Your task to perform on an android device: Search for pizza restaurants on Maps Image 0: 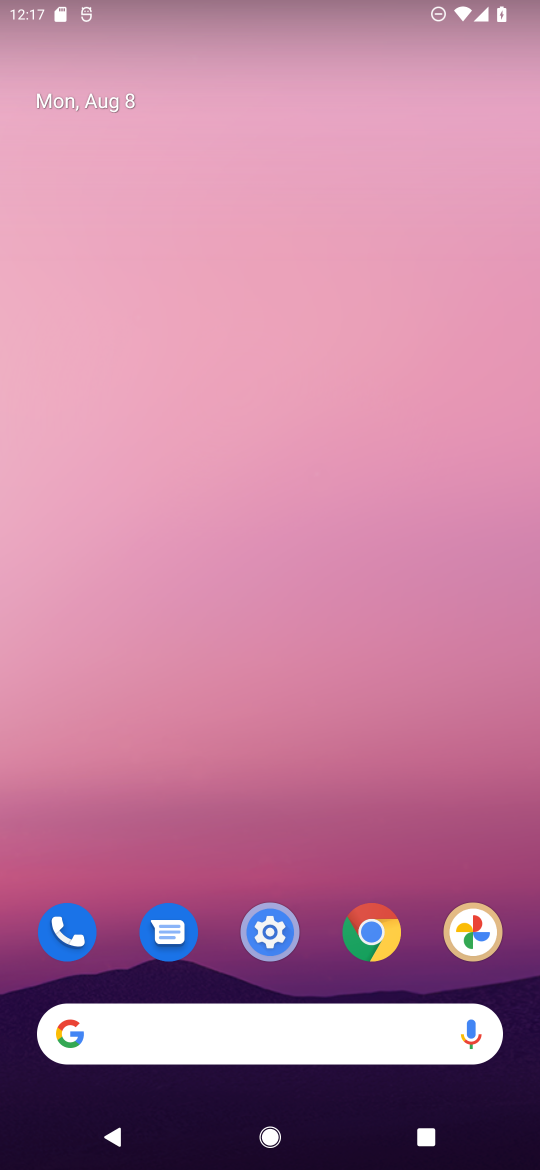
Step 0: drag from (234, 876) to (290, 343)
Your task to perform on an android device: Search for pizza restaurants on Maps Image 1: 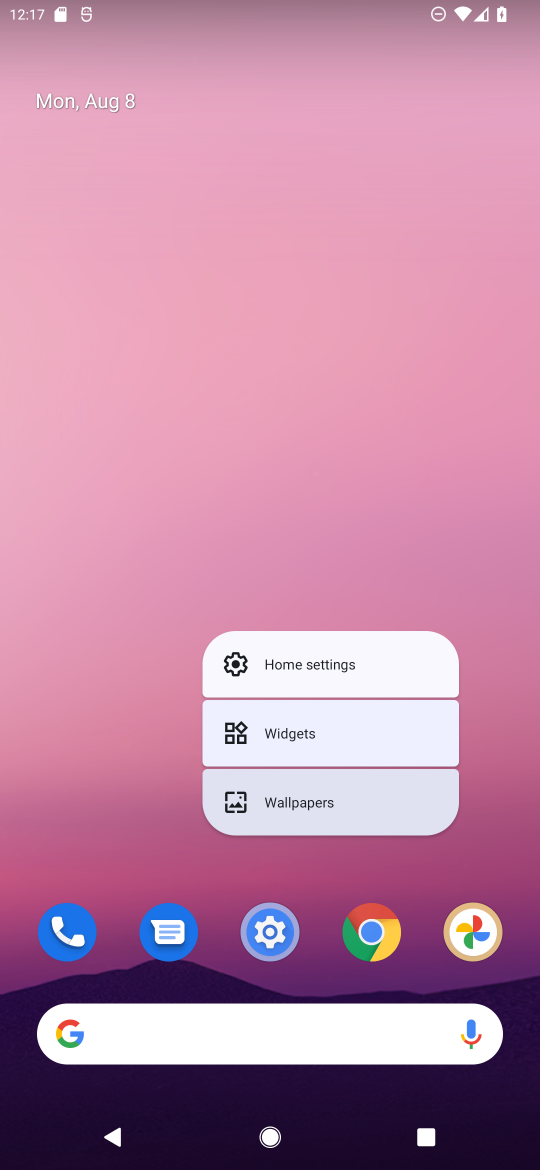
Step 1: drag from (146, 821) to (256, 118)
Your task to perform on an android device: Search for pizza restaurants on Maps Image 2: 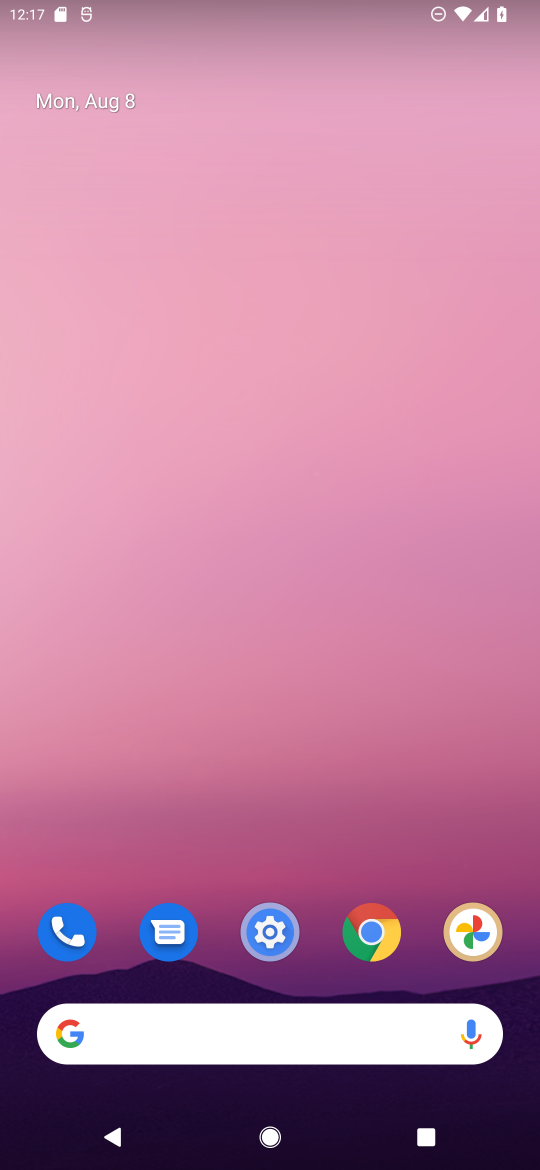
Step 2: drag from (297, 893) to (257, 238)
Your task to perform on an android device: Search for pizza restaurants on Maps Image 3: 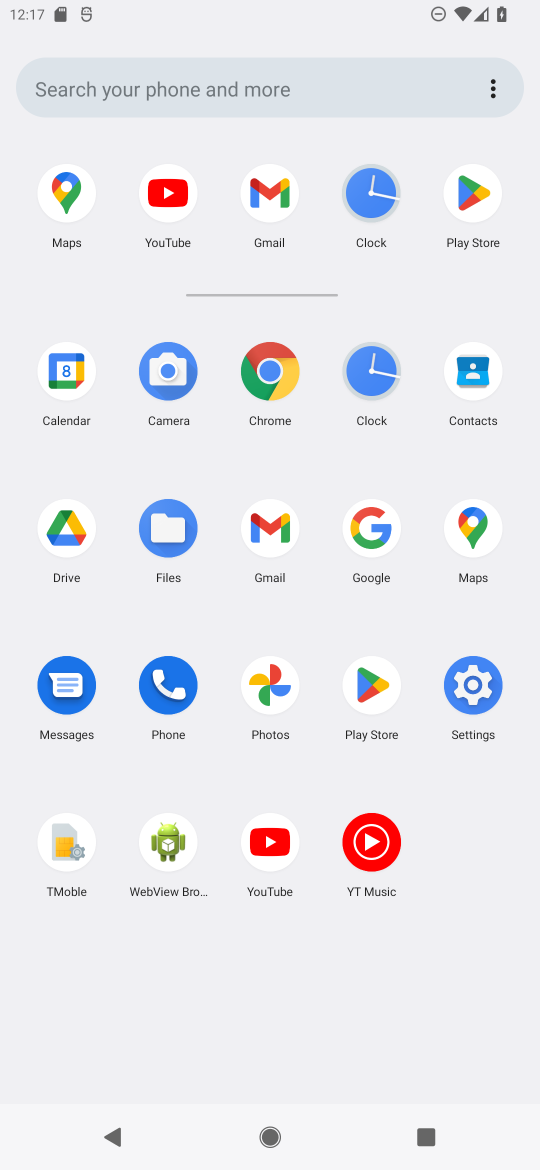
Step 3: click (474, 531)
Your task to perform on an android device: Search for pizza restaurants on Maps Image 4: 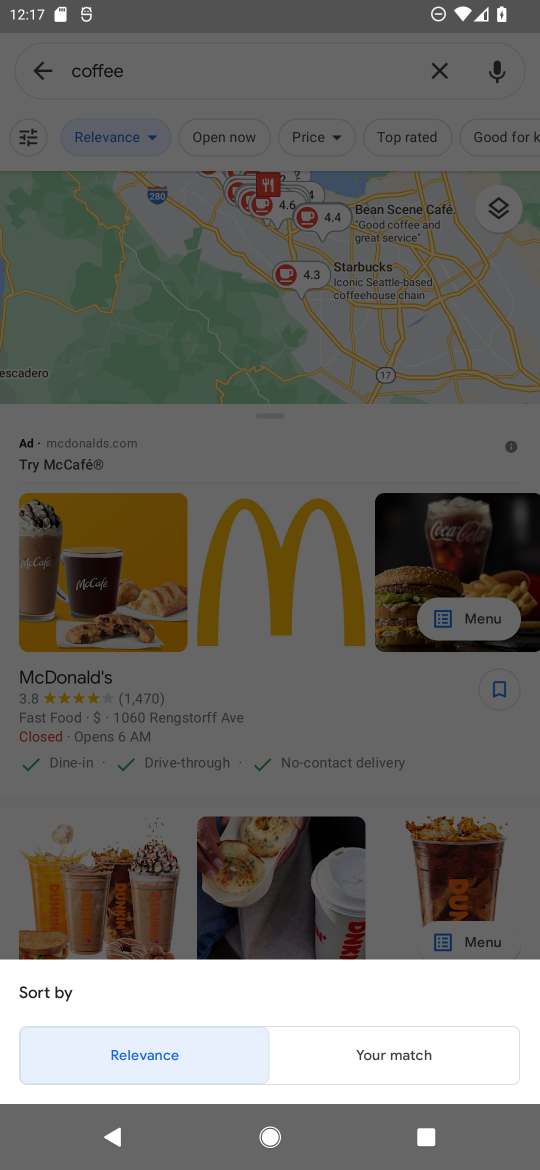
Step 4: click (186, 938)
Your task to perform on an android device: Search for pizza restaurants on Maps Image 5: 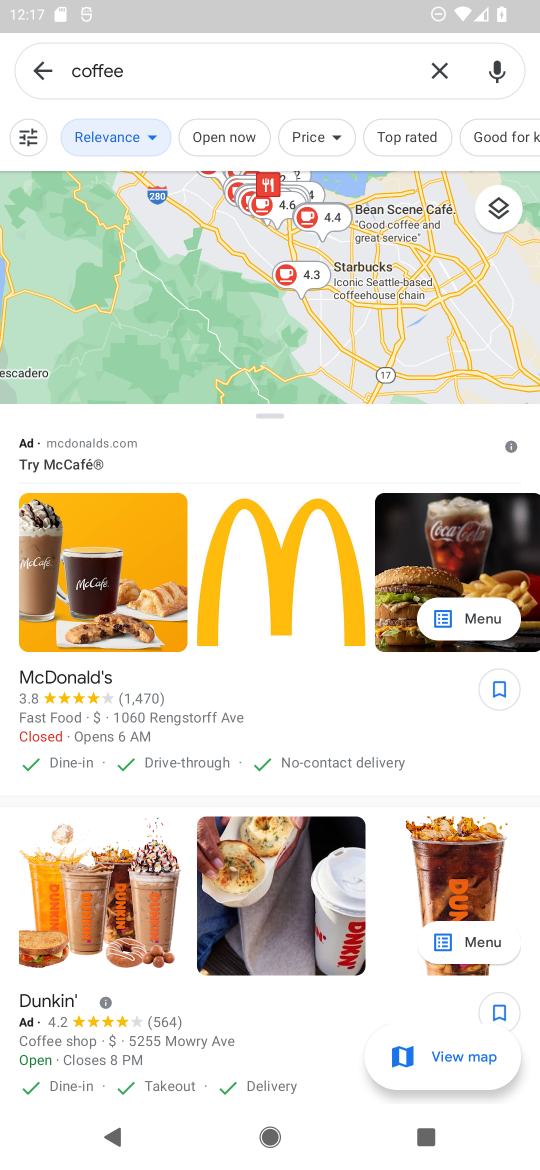
Step 5: click (436, 77)
Your task to perform on an android device: Search for pizza restaurants on Maps Image 6: 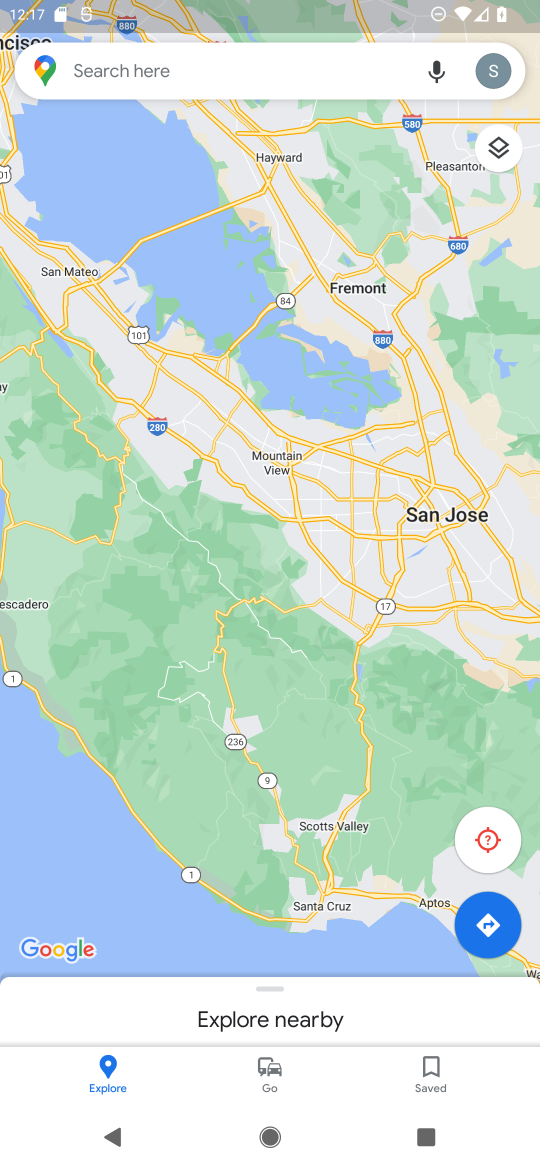
Step 6: click (251, 86)
Your task to perform on an android device: Search for pizza restaurants on Maps Image 7: 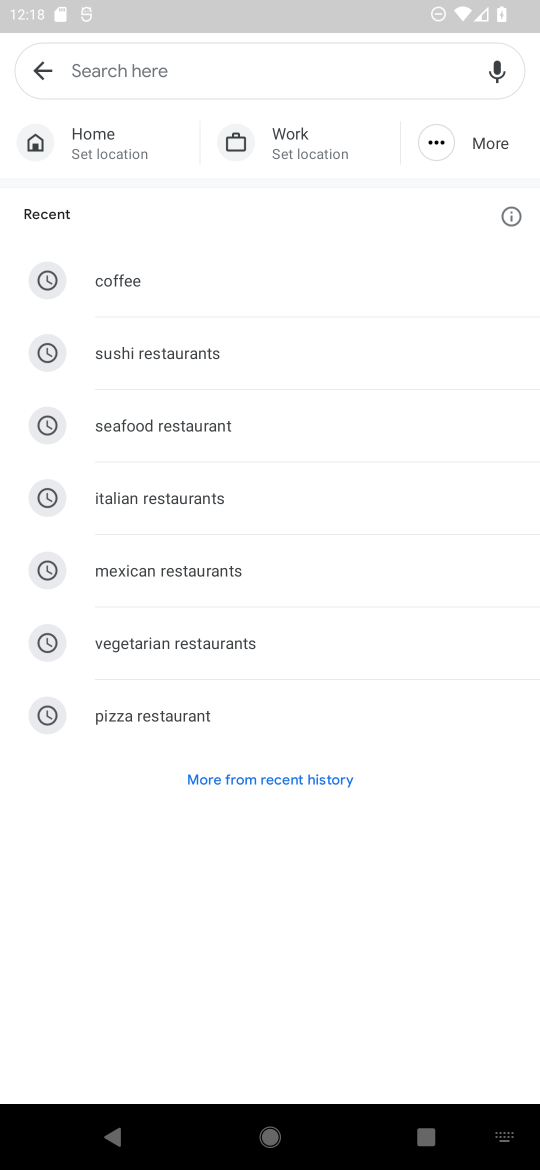
Step 7: click (193, 727)
Your task to perform on an android device: Search for pizza restaurants on Maps Image 8: 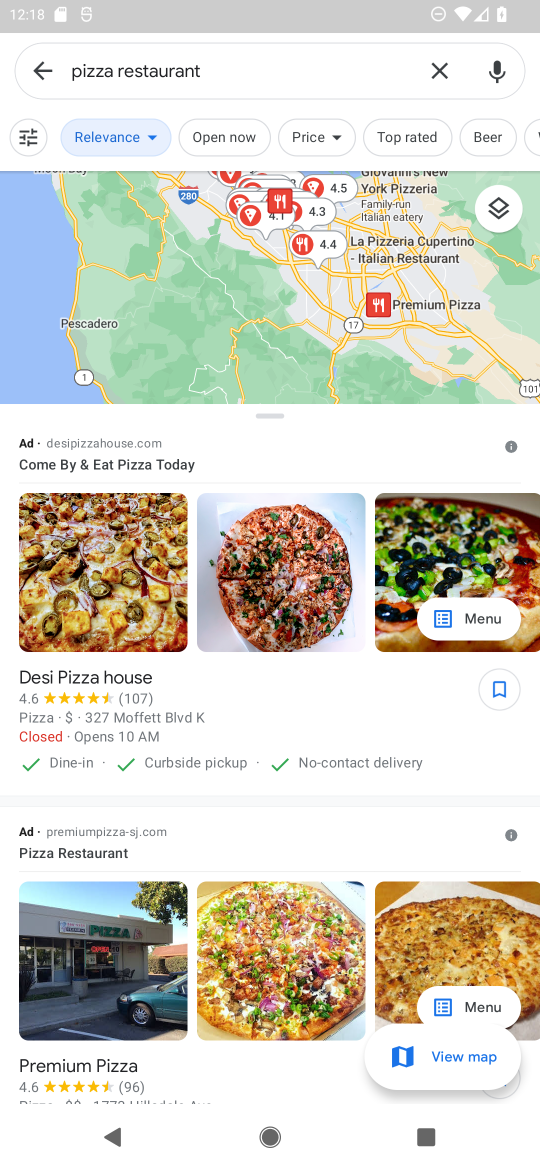
Step 8: task complete